Your task to perform on an android device: Do I have any events today? Image 0: 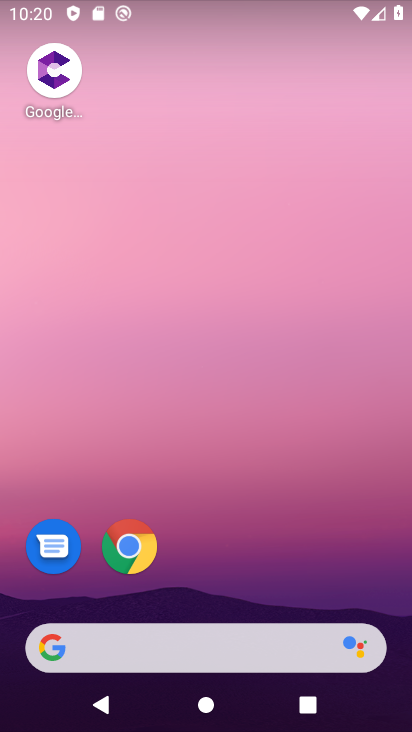
Step 0: drag from (249, 680) to (313, 348)
Your task to perform on an android device: Do I have any events today? Image 1: 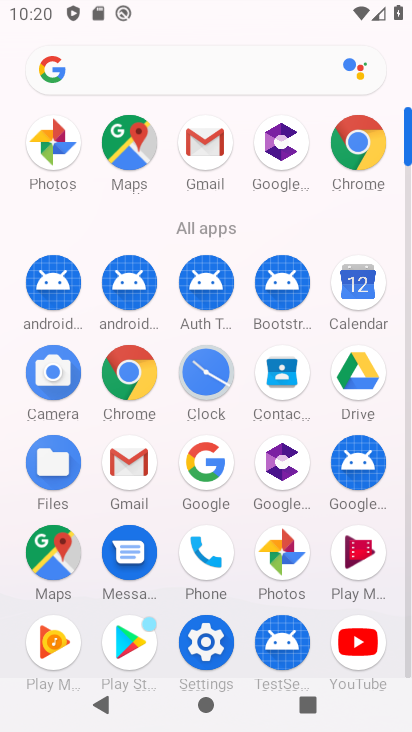
Step 1: click (330, 294)
Your task to perform on an android device: Do I have any events today? Image 2: 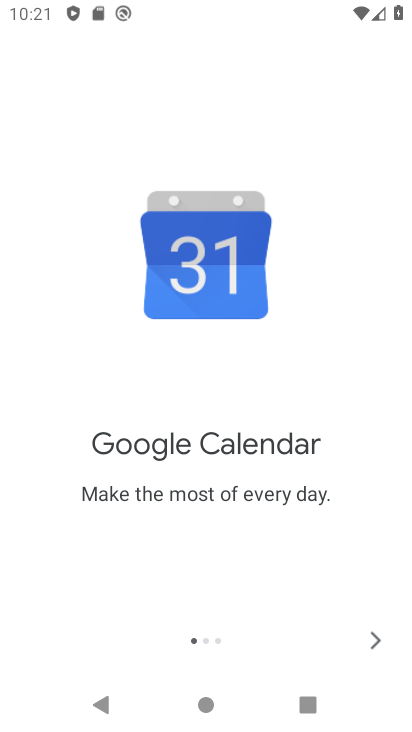
Step 2: click (369, 641)
Your task to perform on an android device: Do I have any events today? Image 3: 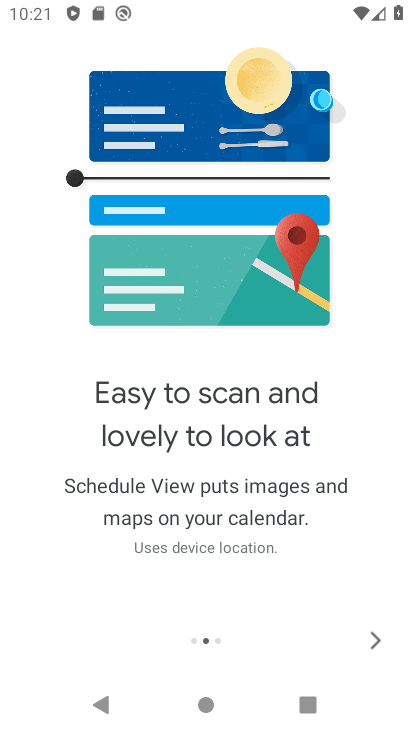
Step 3: click (360, 641)
Your task to perform on an android device: Do I have any events today? Image 4: 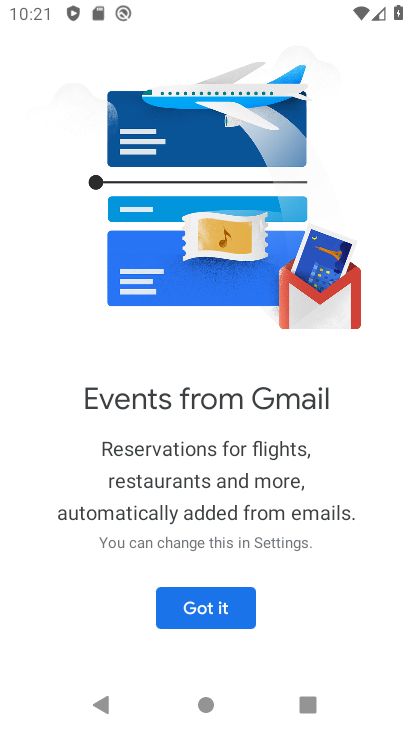
Step 4: click (193, 606)
Your task to perform on an android device: Do I have any events today? Image 5: 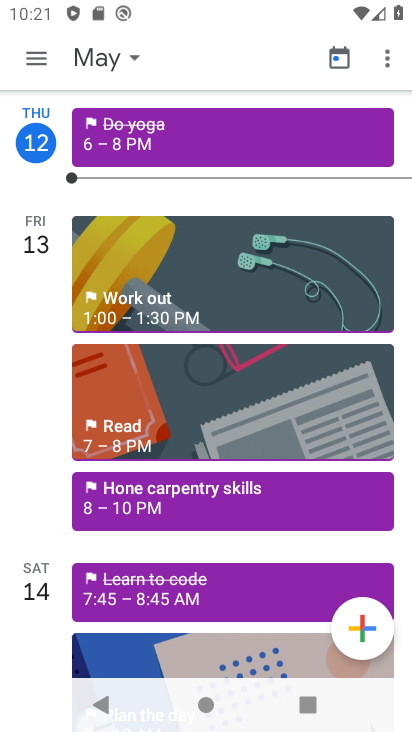
Step 5: task complete